Your task to perform on an android device: turn off translation in the chrome app Image 0: 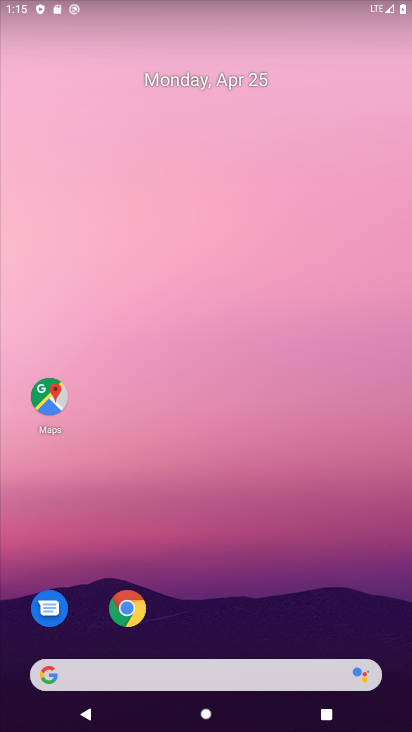
Step 0: click (123, 616)
Your task to perform on an android device: turn off translation in the chrome app Image 1: 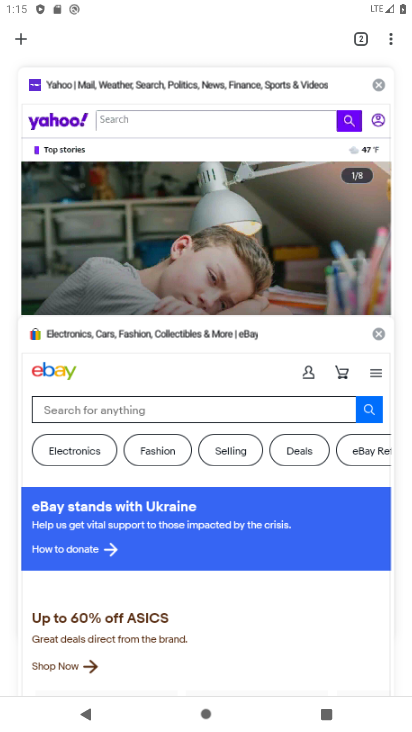
Step 1: click (391, 36)
Your task to perform on an android device: turn off translation in the chrome app Image 2: 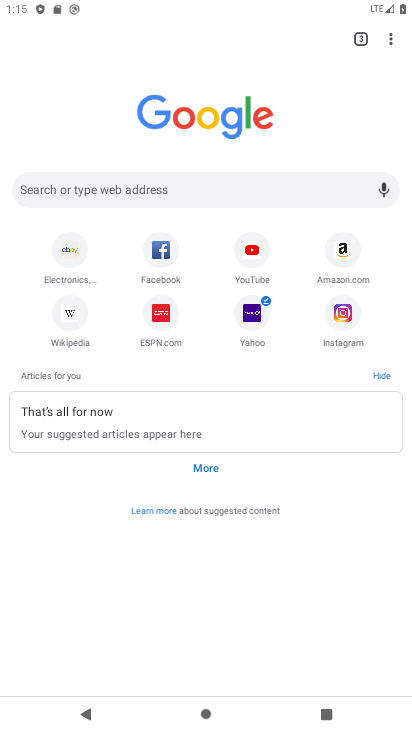
Step 2: click (389, 34)
Your task to perform on an android device: turn off translation in the chrome app Image 3: 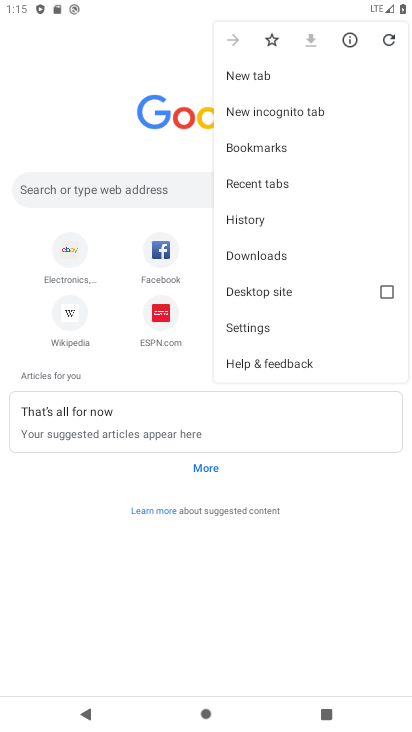
Step 3: click (243, 323)
Your task to perform on an android device: turn off translation in the chrome app Image 4: 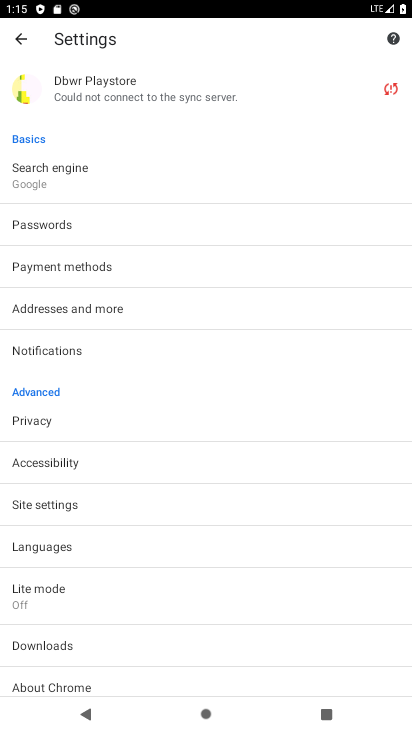
Step 4: click (145, 551)
Your task to perform on an android device: turn off translation in the chrome app Image 5: 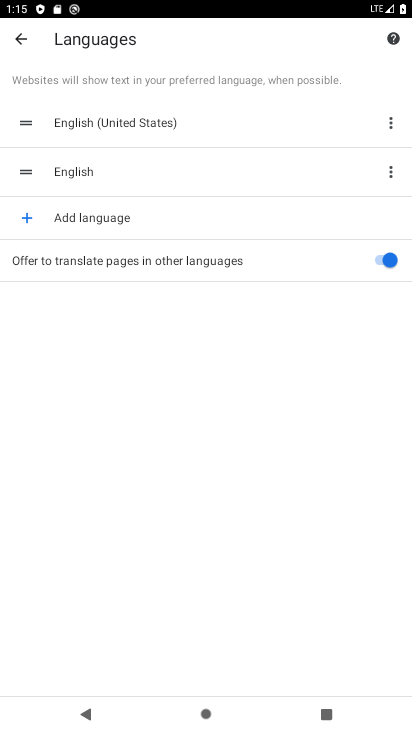
Step 5: click (383, 258)
Your task to perform on an android device: turn off translation in the chrome app Image 6: 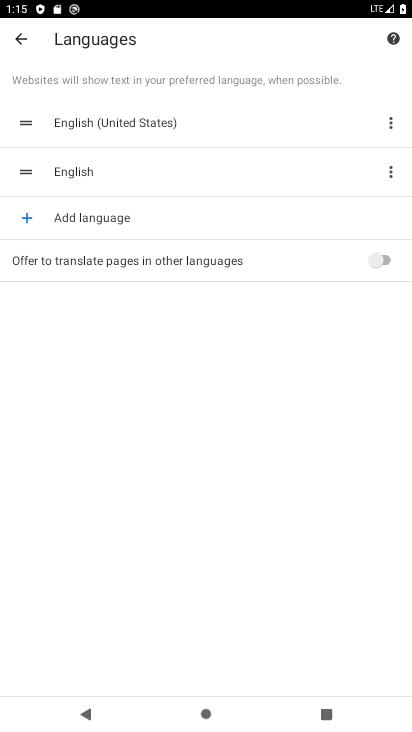
Step 6: task complete